Your task to perform on an android device: Go to notification settings Image 0: 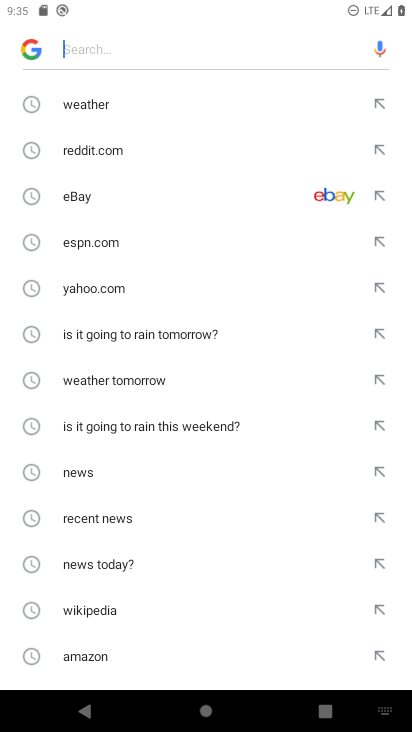
Step 0: press back button
Your task to perform on an android device: Go to notification settings Image 1: 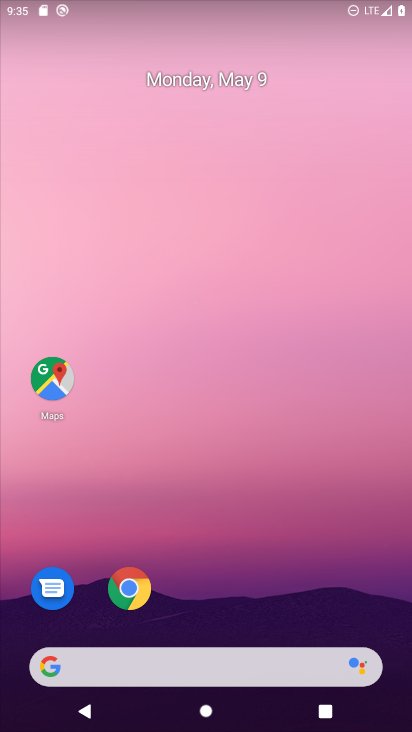
Step 1: drag from (267, 593) to (261, 81)
Your task to perform on an android device: Go to notification settings Image 2: 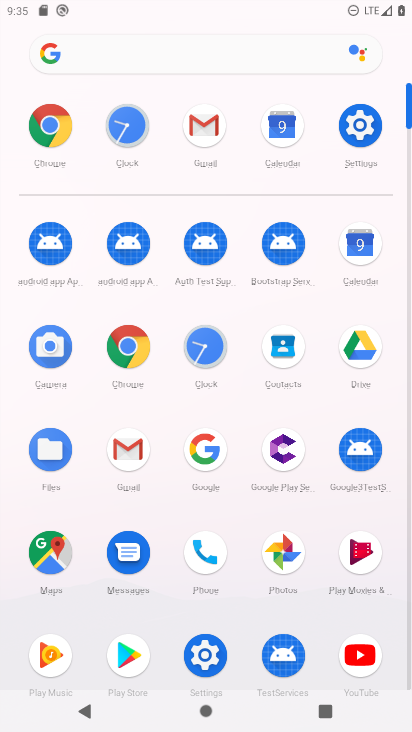
Step 2: click (366, 146)
Your task to perform on an android device: Go to notification settings Image 3: 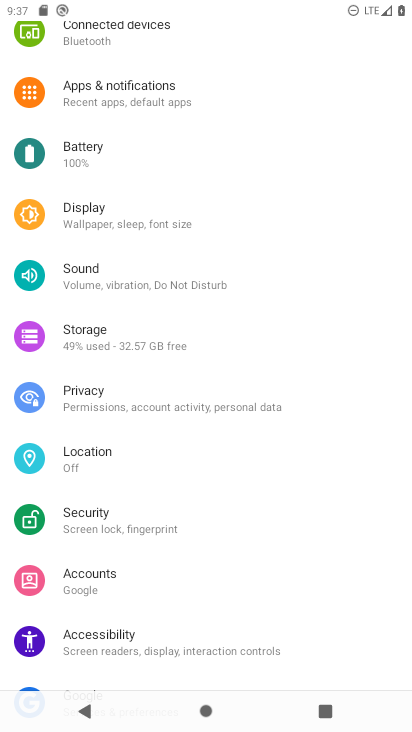
Step 3: click (168, 113)
Your task to perform on an android device: Go to notification settings Image 4: 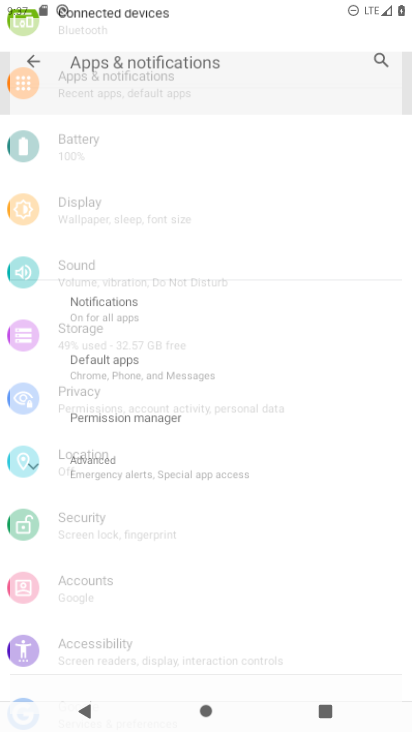
Step 4: task complete